Your task to perform on an android device: Open Chrome and go to settings Image 0: 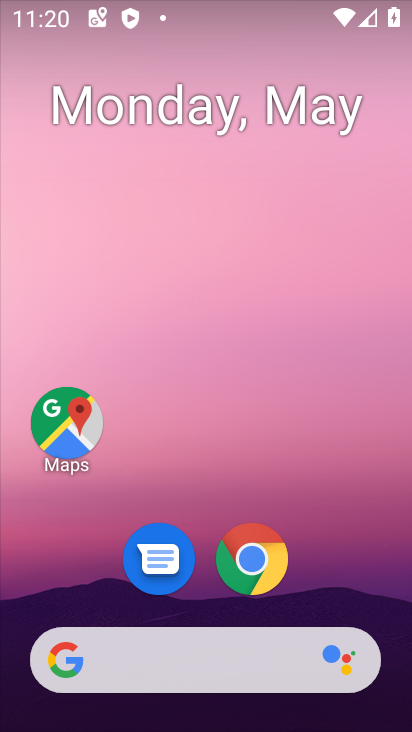
Step 0: drag from (327, 545) to (320, 90)
Your task to perform on an android device: Open Chrome and go to settings Image 1: 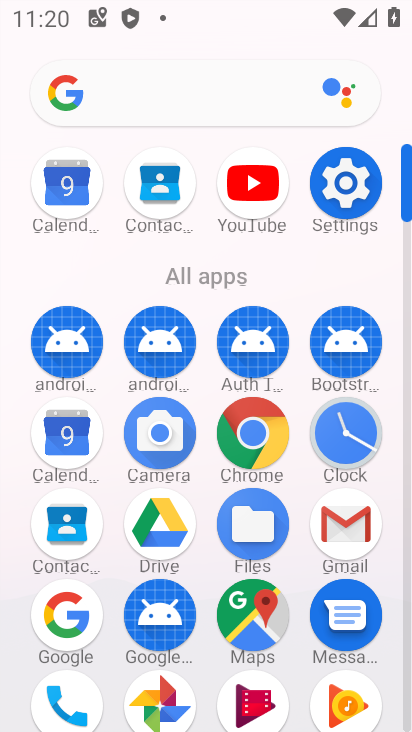
Step 1: click (255, 455)
Your task to perform on an android device: Open Chrome and go to settings Image 2: 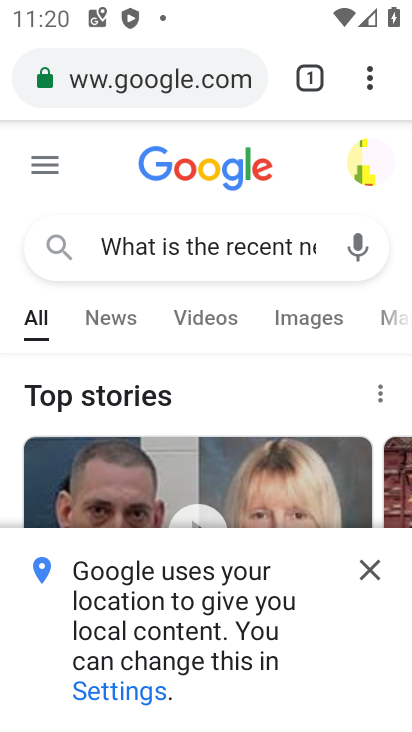
Step 2: task complete